Your task to perform on an android device: turn pop-ups on in chrome Image 0: 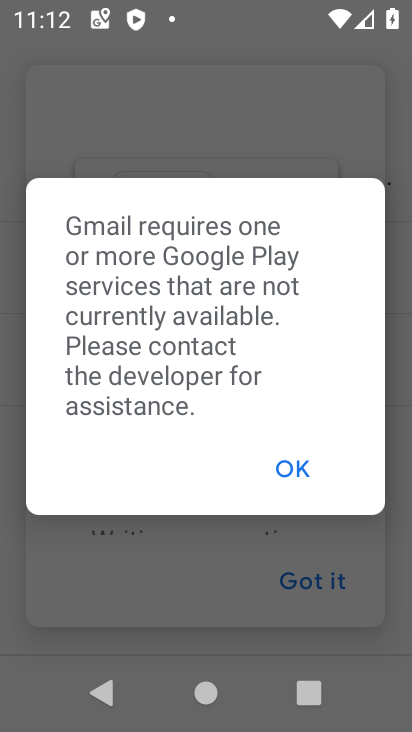
Step 0: press home button
Your task to perform on an android device: turn pop-ups on in chrome Image 1: 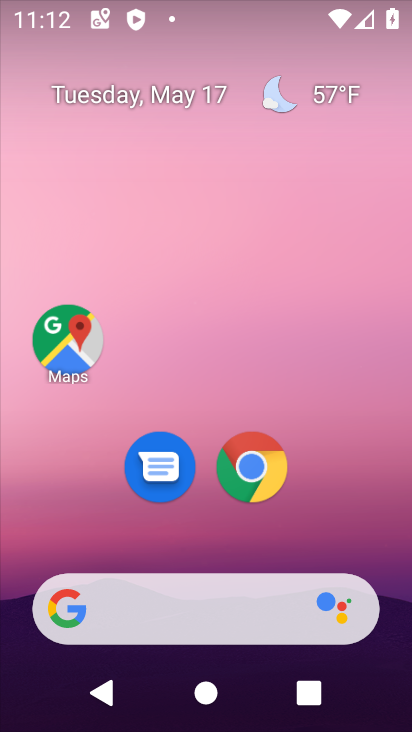
Step 1: drag from (242, 628) to (411, 172)
Your task to perform on an android device: turn pop-ups on in chrome Image 2: 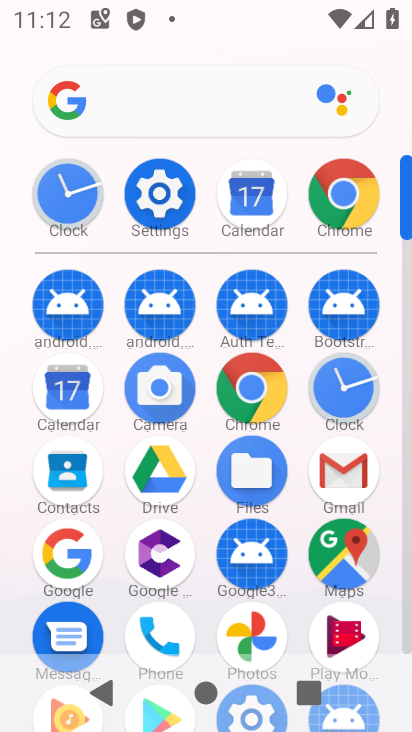
Step 2: click (352, 207)
Your task to perform on an android device: turn pop-ups on in chrome Image 3: 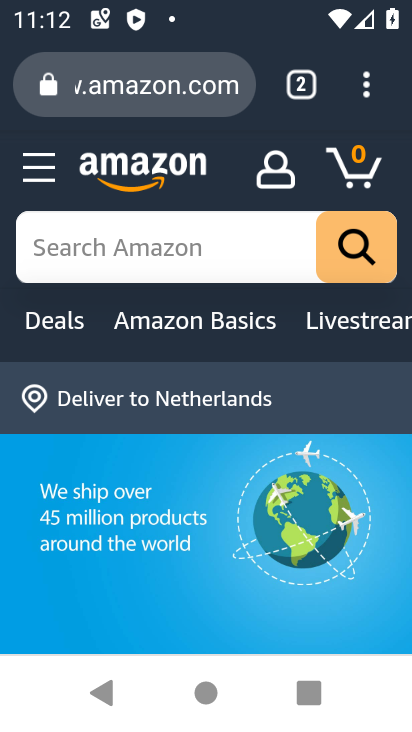
Step 3: click (352, 108)
Your task to perform on an android device: turn pop-ups on in chrome Image 4: 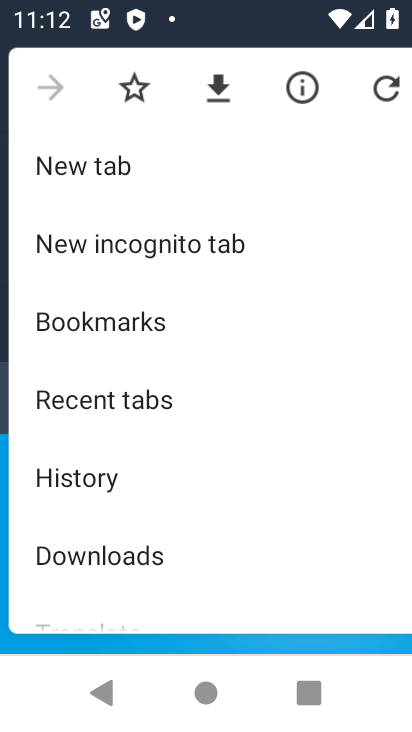
Step 4: drag from (102, 537) to (119, 333)
Your task to perform on an android device: turn pop-ups on in chrome Image 5: 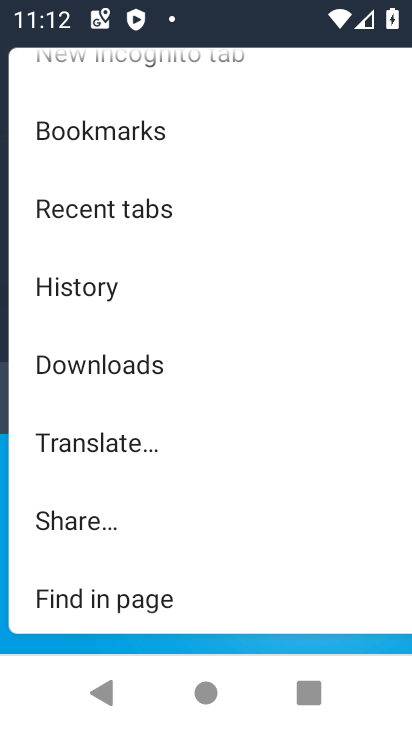
Step 5: drag from (106, 455) to (141, 316)
Your task to perform on an android device: turn pop-ups on in chrome Image 6: 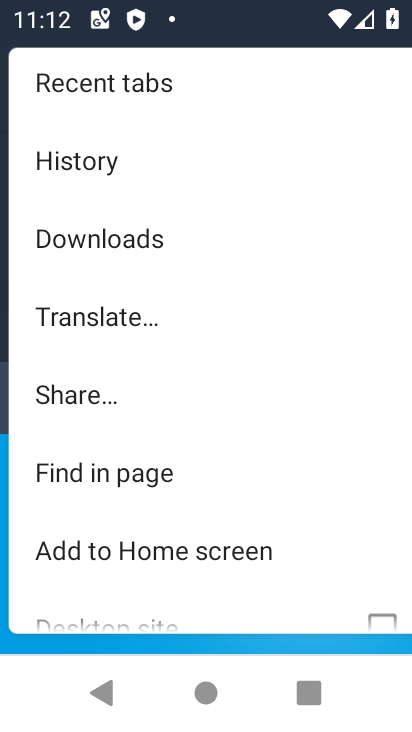
Step 6: drag from (159, 469) to (167, 329)
Your task to perform on an android device: turn pop-ups on in chrome Image 7: 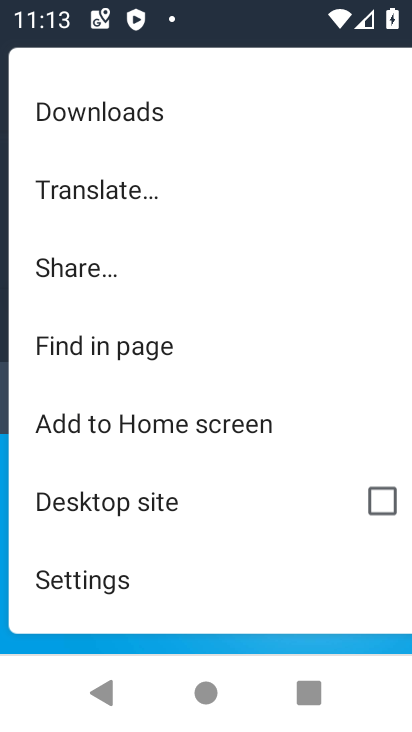
Step 7: click (98, 567)
Your task to perform on an android device: turn pop-ups on in chrome Image 8: 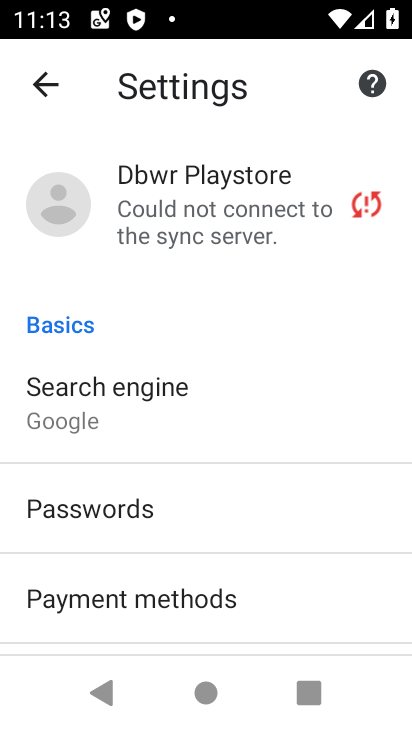
Step 8: drag from (107, 556) to (132, 345)
Your task to perform on an android device: turn pop-ups on in chrome Image 9: 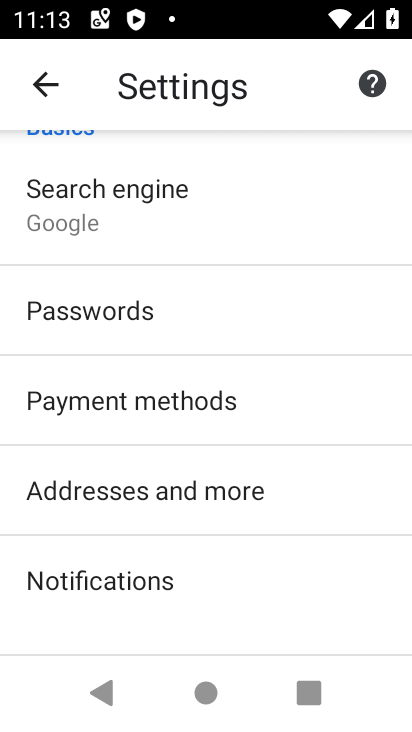
Step 9: drag from (124, 464) to (114, 257)
Your task to perform on an android device: turn pop-ups on in chrome Image 10: 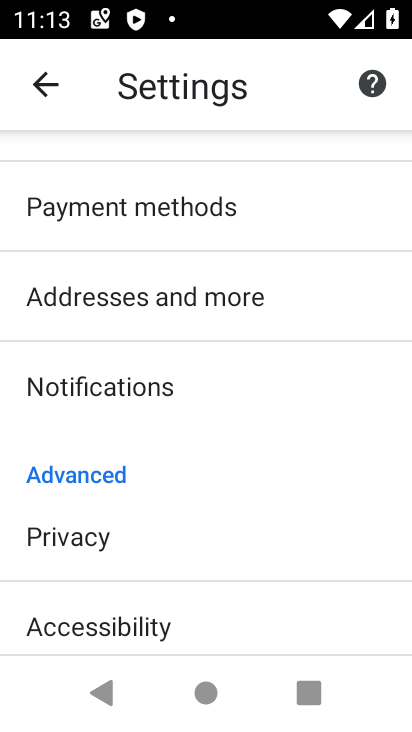
Step 10: drag from (180, 445) to (224, 261)
Your task to perform on an android device: turn pop-ups on in chrome Image 11: 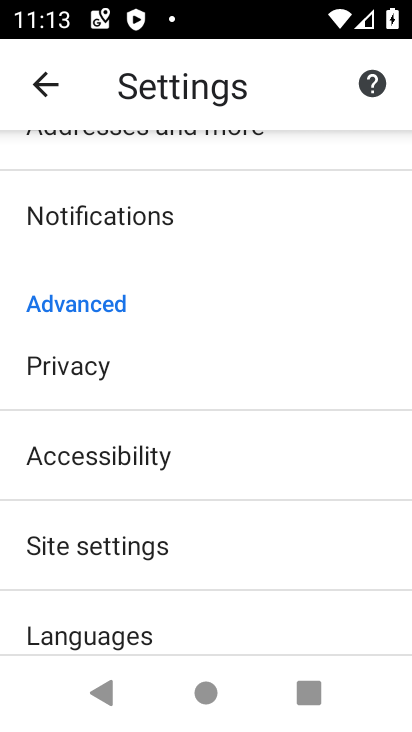
Step 11: click (93, 552)
Your task to perform on an android device: turn pop-ups on in chrome Image 12: 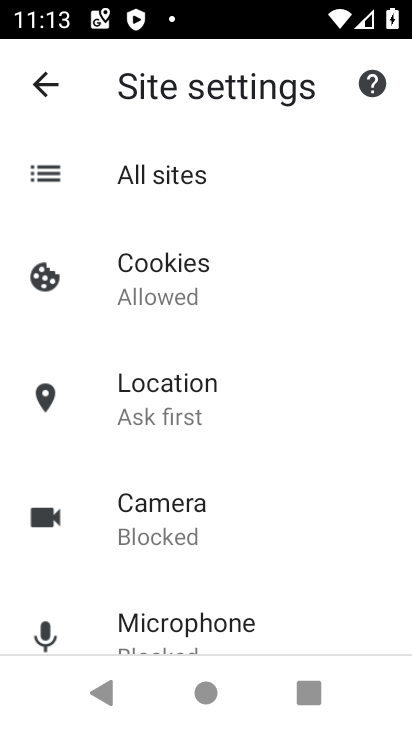
Step 12: drag from (175, 517) to (208, 341)
Your task to perform on an android device: turn pop-ups on in chrome Image 13: 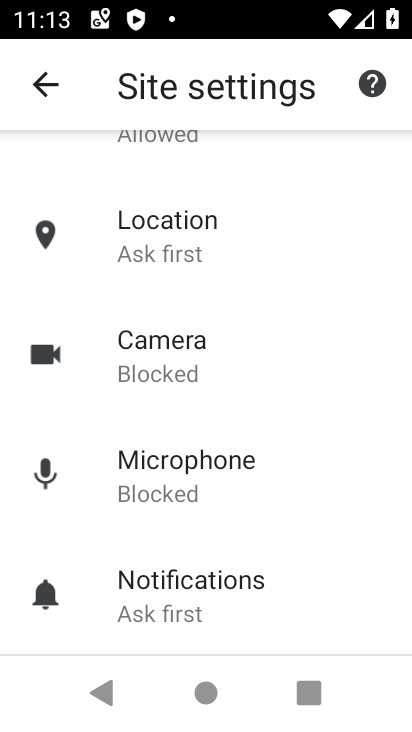
Step 13: drag from (178, 547) to (224, 301)
Your task to perform on an android device: turn pop-ups on in chrome Image 14: 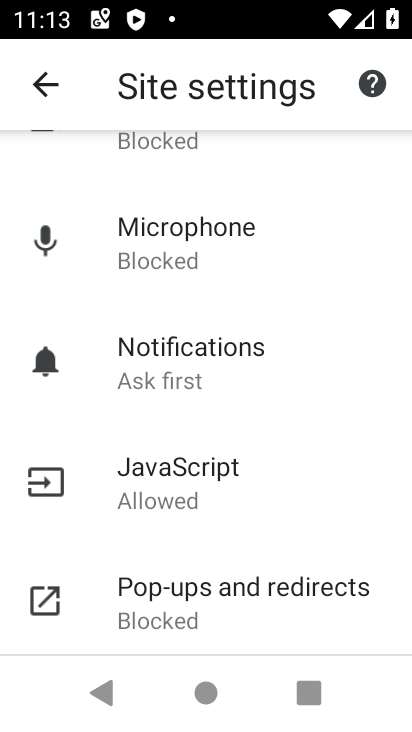
Step 14: click (143, 594)
Your task to perform on an android device: turn pop-ups on in chrome Image 15: 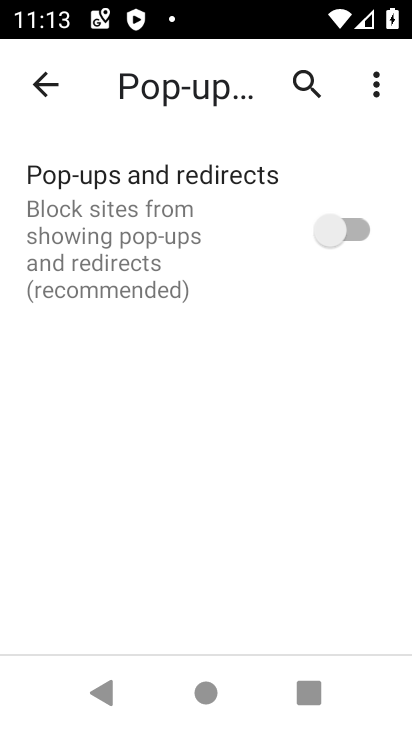
Step 15: click (347, 222)
Your task to perform on an android device: turn pop-ups on in chrome Image 16: 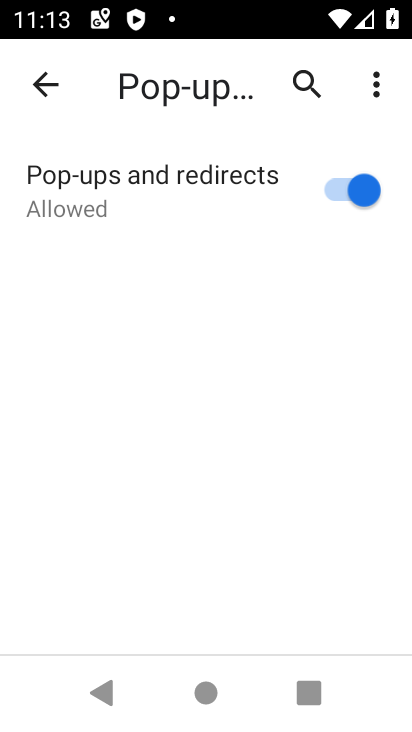
Step 16: task complete